Your task to perform on an android device: Open ESPN.com Image 0: 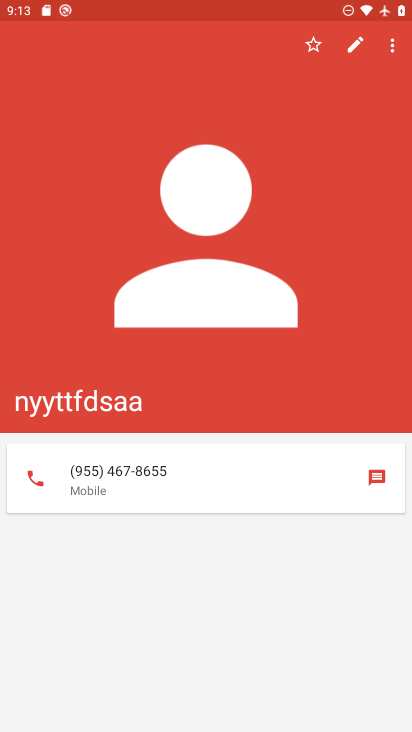
Step 0: press home button
Your task to perform on an android device: Open ESPN.com Image 1: 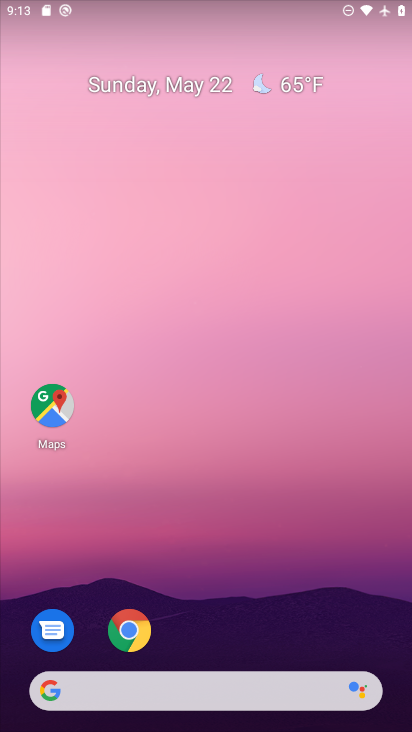
Step 1: click (126, 628)
Your task to perform on an android device: Open ESPN.com Image 2: 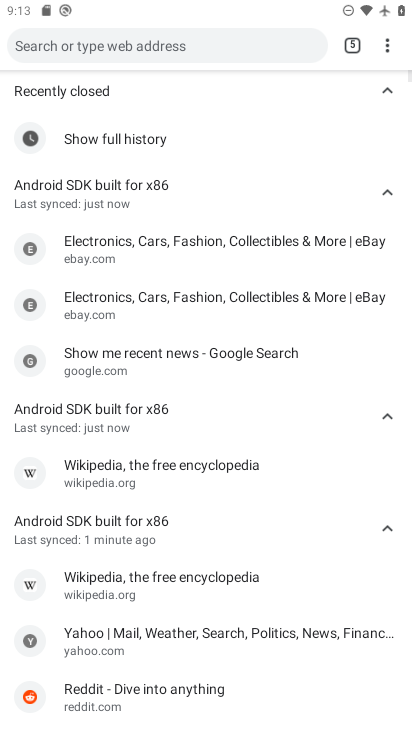
Step 2: drag from (389, 44) to (275, 82)
Your task to perform on an android device: Open ESPN.com Image 3: 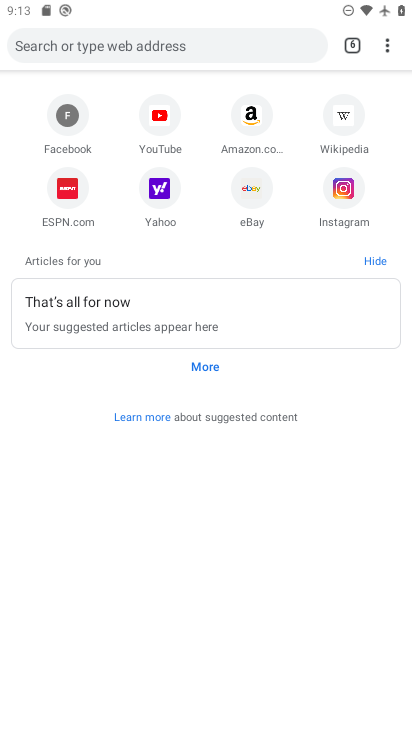
Step 3: click (68, 188)
Your task to perform on an android device: Open ESPN.com Image 4: 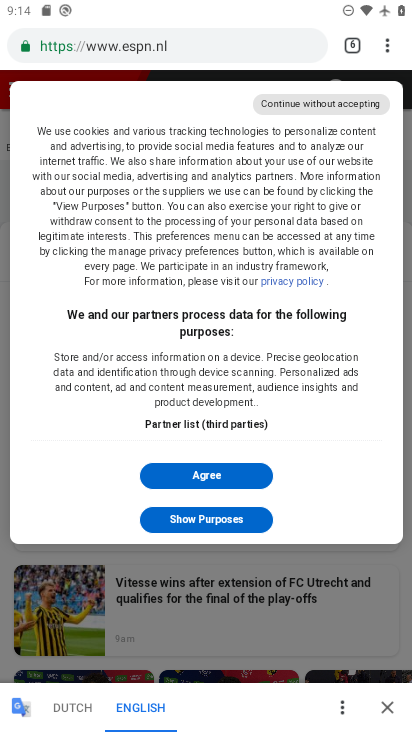
Step 4: click (211, 477)
Your task to perform on an android device: Open ESPN.com Image 5: 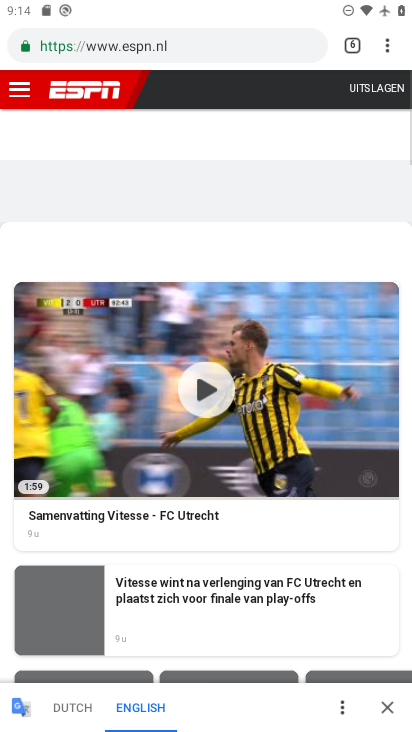
Step 5: task complete